Your task to perform on an android device: turn pop-ups on in chrome Image 0: 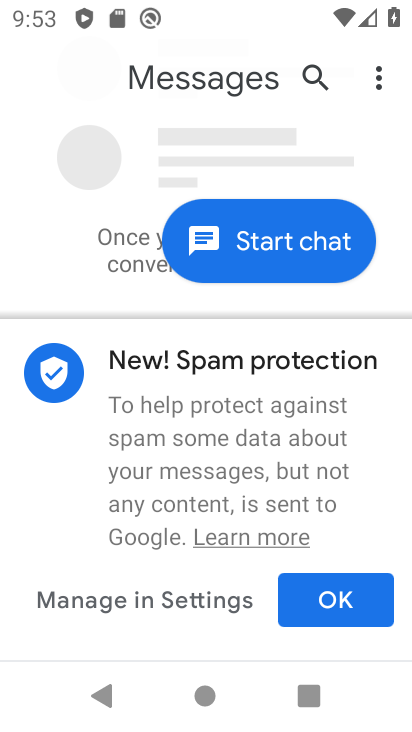
Step 0: click (376, 83)
Your task to perform on an android device: turn pop-ups on in chrome Image 1: 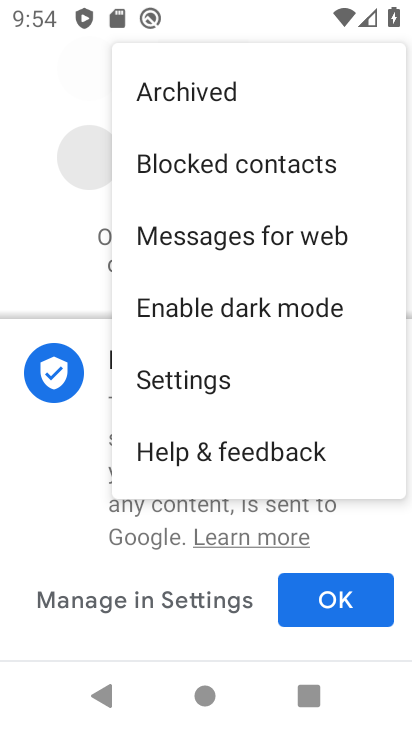
Step 1: press home button
Your task to perform on an android device: turn pop-ups on in chrome Image 2: 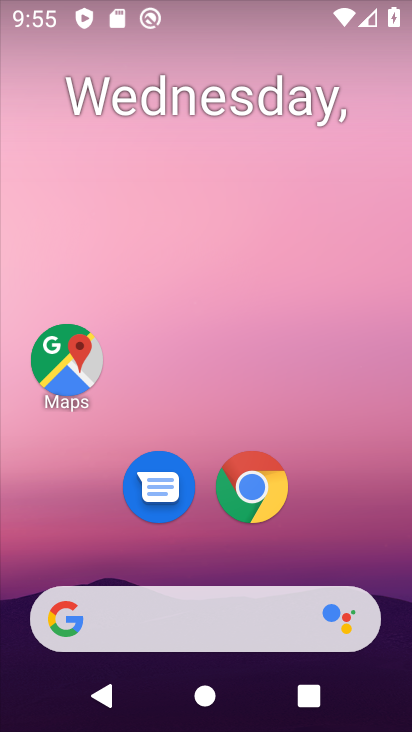
Step 2: click (236, 478)
Your task to perform on an android device: turn pop-ups on in chrome Image 3: 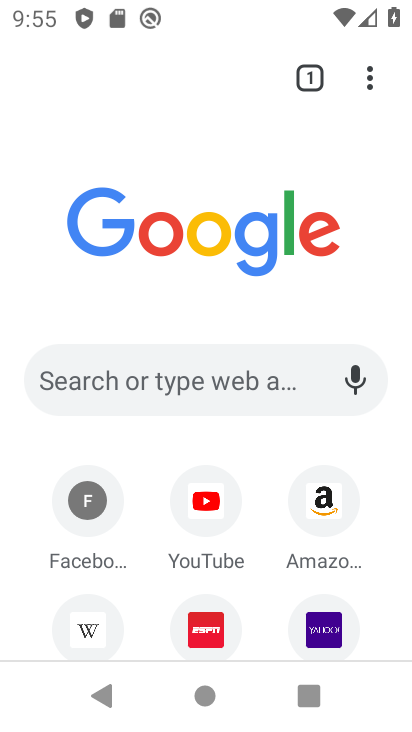
Step 3: click (372, 76)
Your task to perform on an android device: turn pop-ups on in chrome Image 4: 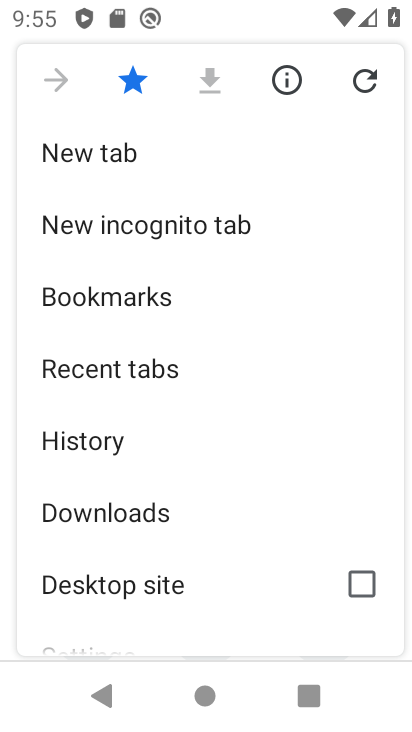
Step 4: click (131, 648)
Your task to perform on an android device: turn pop-ups on in chrome Image 5: 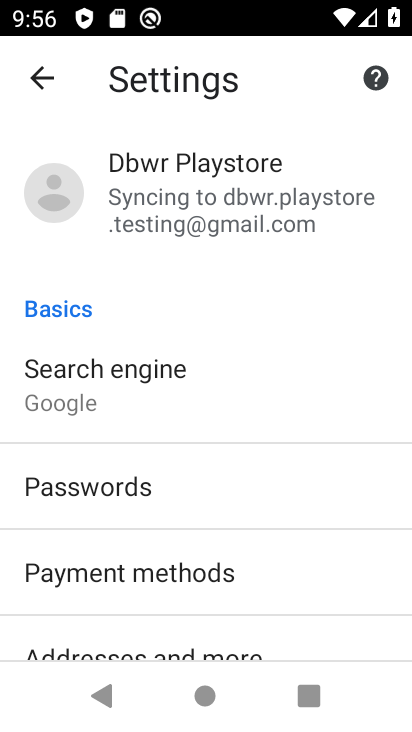
Step 5: drag from (299, 590) to (211, 101)
Your task to perform on an android device: turn pop-ups on in chrome Image 6: 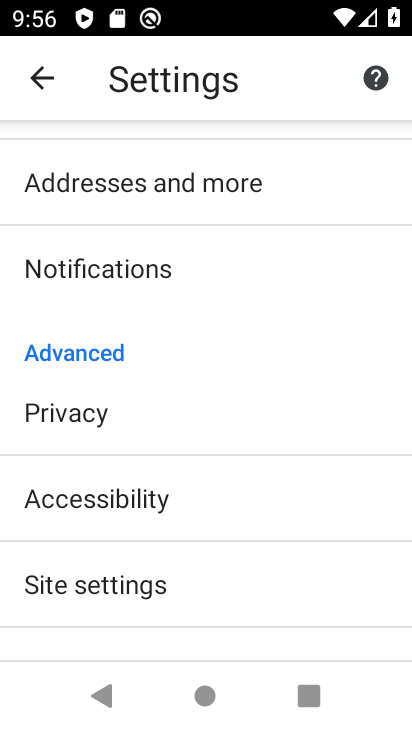
Step 6: drag from (290, 634) to (266, 200)
Your task to perform on an android device: turn pop-ups on in chrome Image 7: 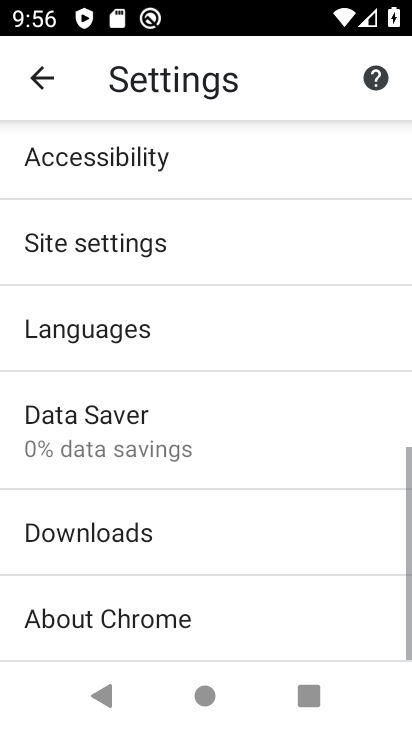
Step 7: click (128, 266)
Your task to perform on an android device: turn pop-ups on in chrome Image 8: 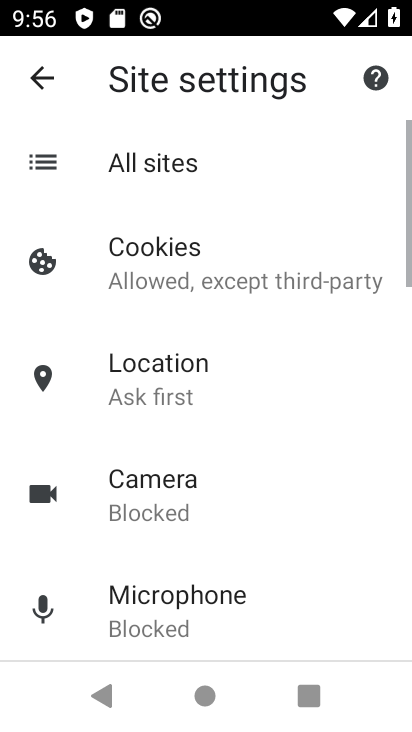
Step 8: drag from (273, 593) to (252, 58)
Your task to perform on an android device: turn pop-ups on in chrome Image 9: 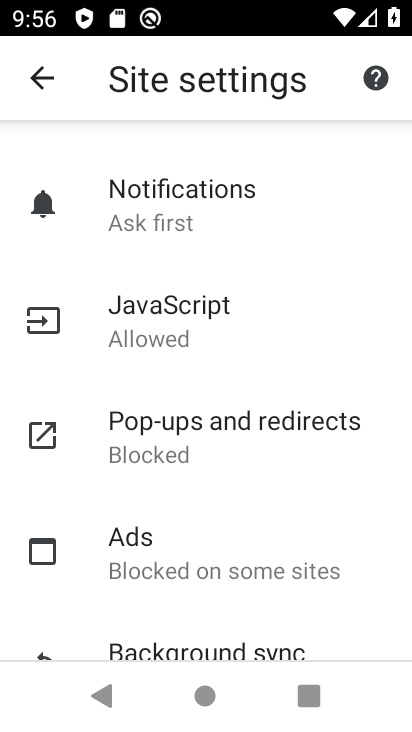
Step 9: click (242, 438)
Your task to perform on an android device: turn pop-ups on in chrome Image 10: 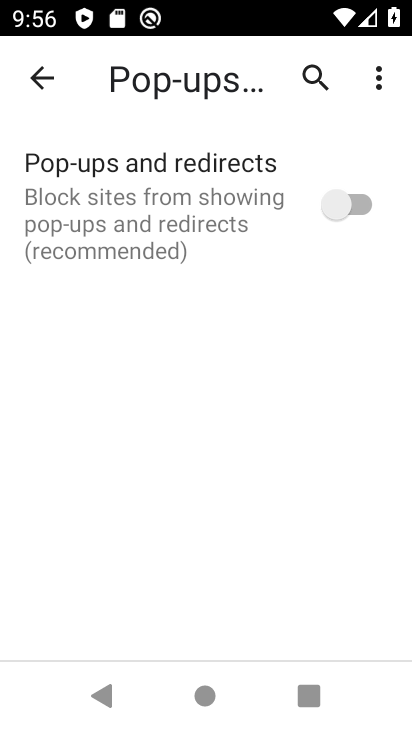
Step 10: click (364, 211)
Your task to perform on an android device: turn pop-ups on in chrome Image 11: 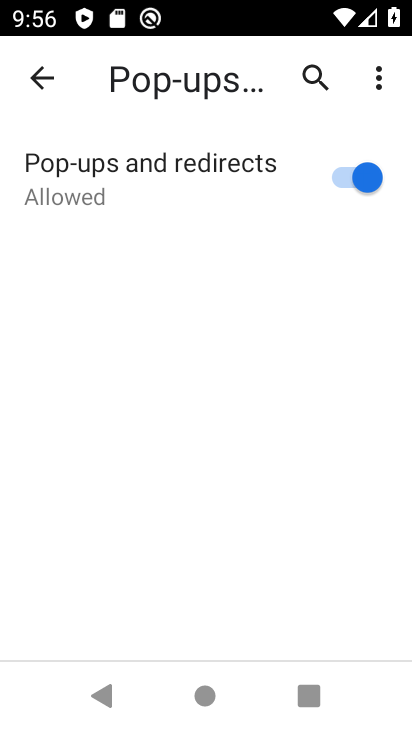
Step 11: task complete